Your task to perform on an android device: Open Chrome and go to the settings page Image 0: 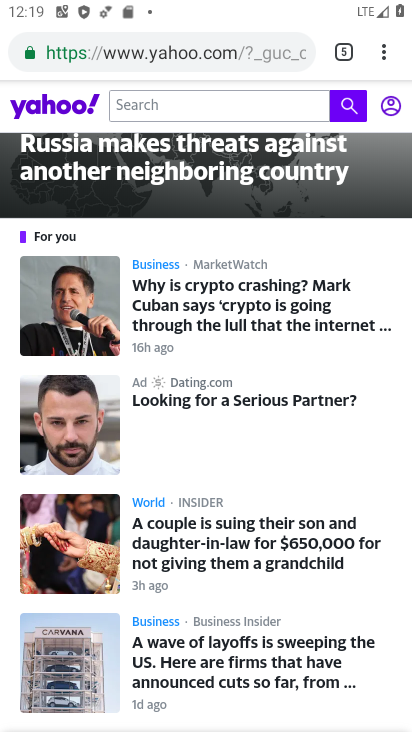
Step 0: press home button
Your task to perform on an android device: Open Chrome and go to the settings page Image 1: 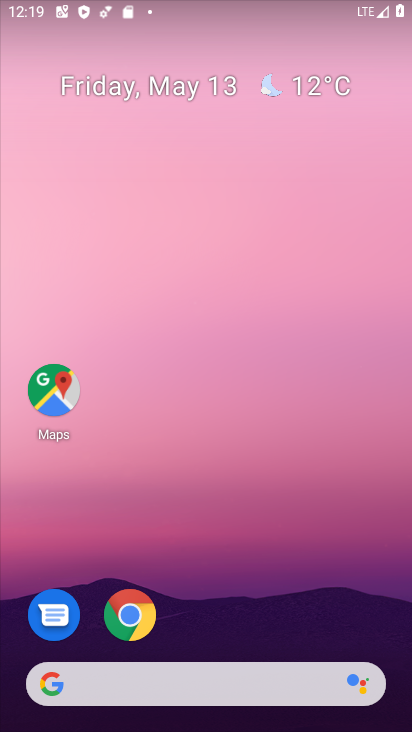
Step 1: click (152, 609)
Your task to perform on an android device: Open Chrome and go to the settings page Image 2: 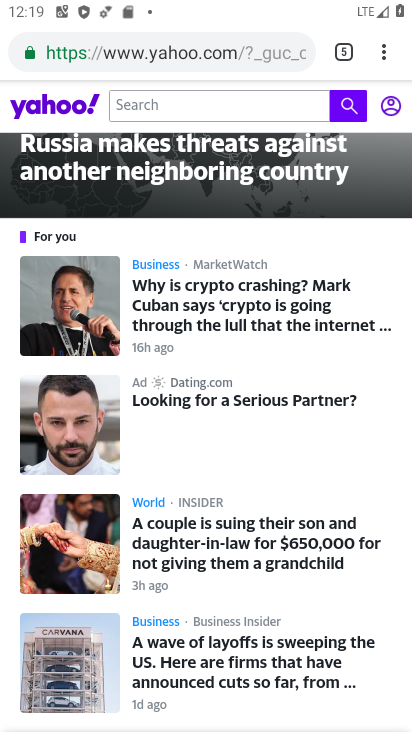
Step 2: task complete